Your task to perform on an android device: turn off picture-in-picture Image 0: 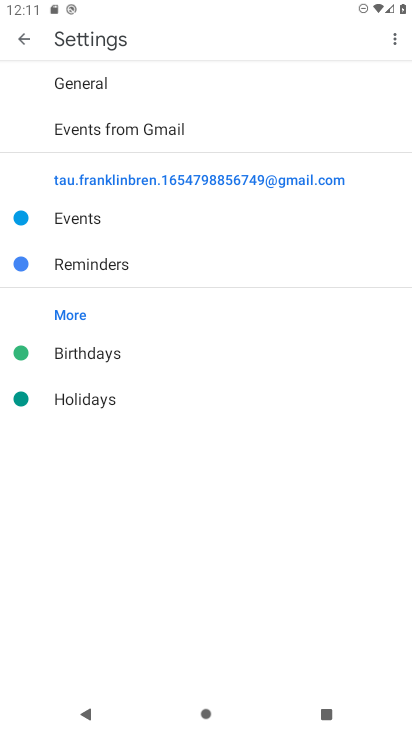
Step 0: press home button
Your task to perform on an android device: turn off picture-in-picture Image 1: 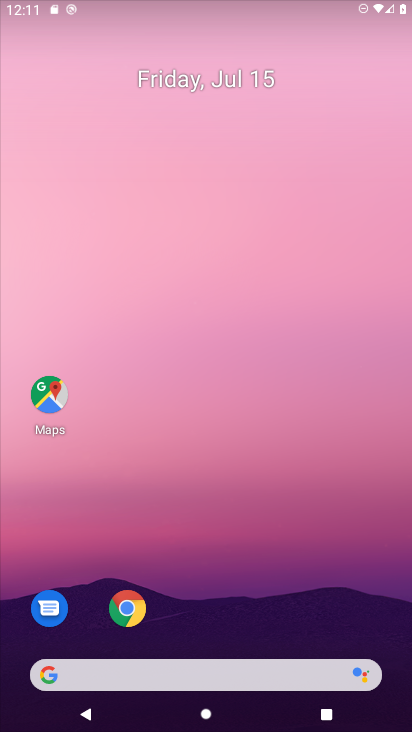
Step 1: drag from (320, 666) to (279, 3)
Your task to perform on an android device: turn off picture-in-picture Image 2: 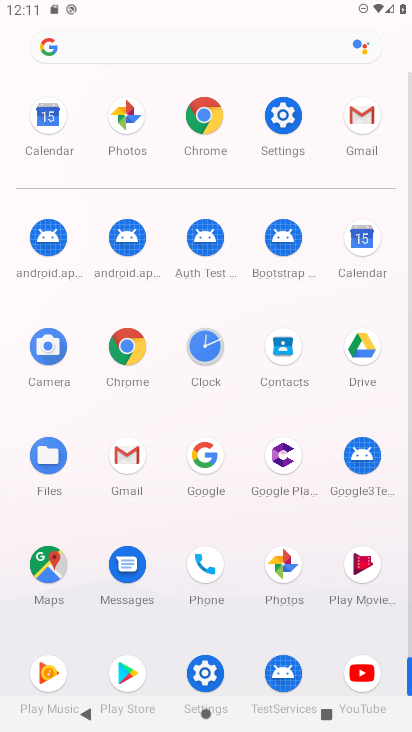
Step 2: click (272, 119)
Your task to perform on an android device: turn off picture-in-picture Image 3: 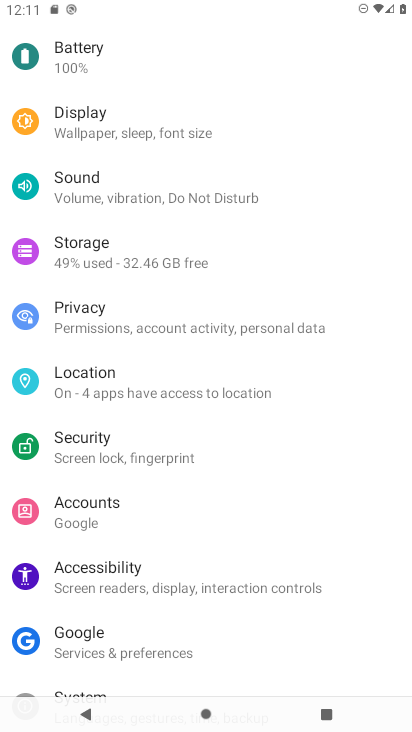
Step 3: drag from (106, 193) to (129, 539)
Your task to perform on an android device: turn off picture-in-picture Image 4: 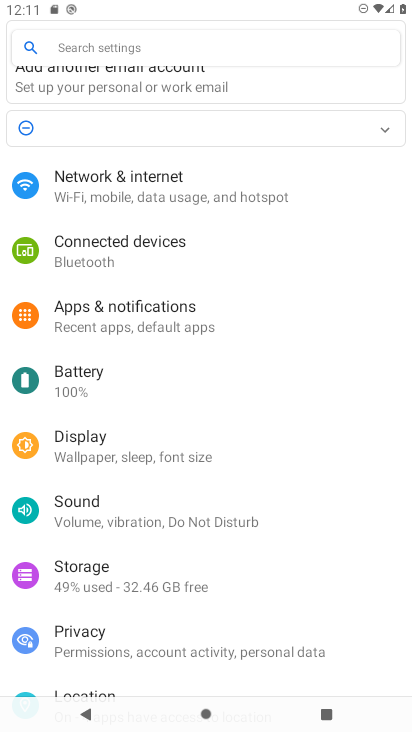
Step 4: click (136, 326)
Your task to perform on an android device: turn off picture-in-picture Image 5: 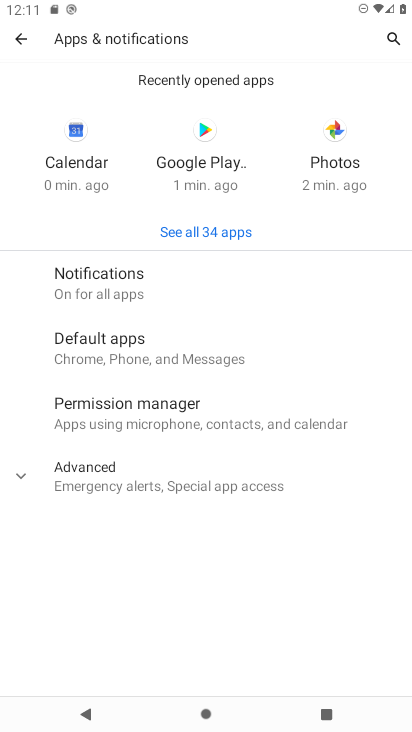
Step 5: click (140, 480)
Your task to perform on an android device: turn off picture-in-picture Image 6: 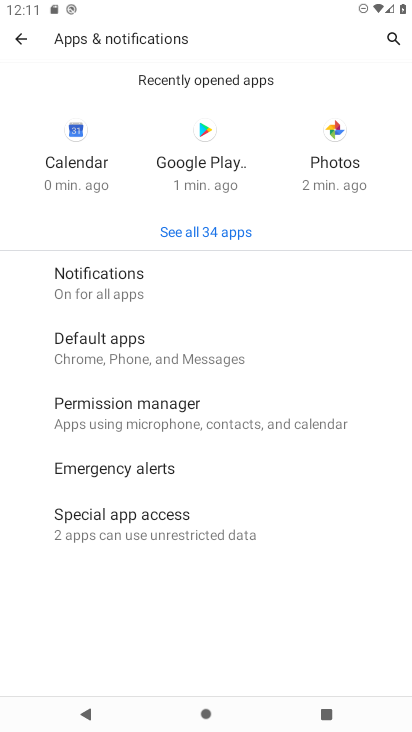
Step 6: click (140, 529)
Your task to perform on an android device: turn off picture-in-picture Image 7: 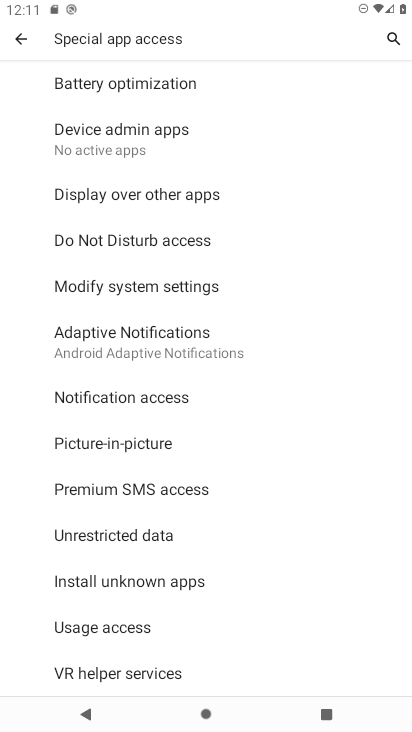
Step 7: click (100, 446)
Your task to perform on an android device: turn off picture-in-picture Image 8: 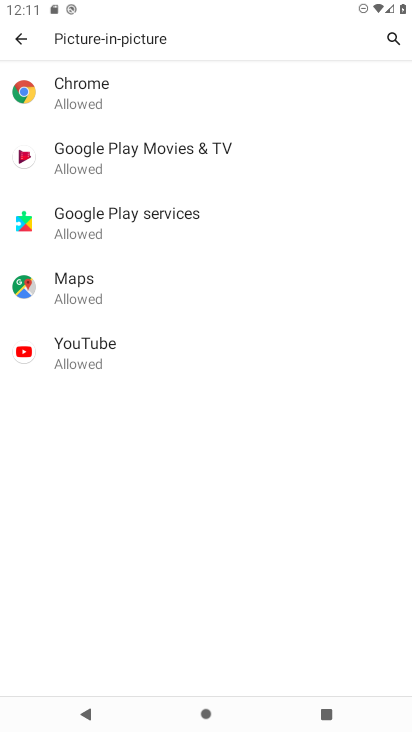
Step 8: click (93, 94)
Your task to perform on an android device: turn off picture-in-picture Image 9: 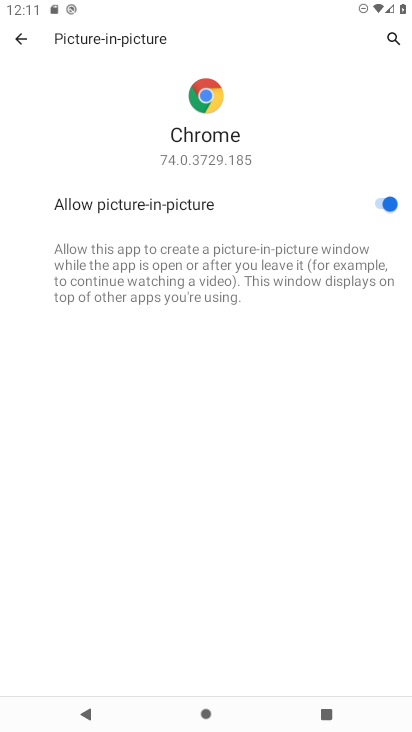
Step 9: click (391, 203)
Your task to perform on an android device: turn off picture-in-picture Image 10: 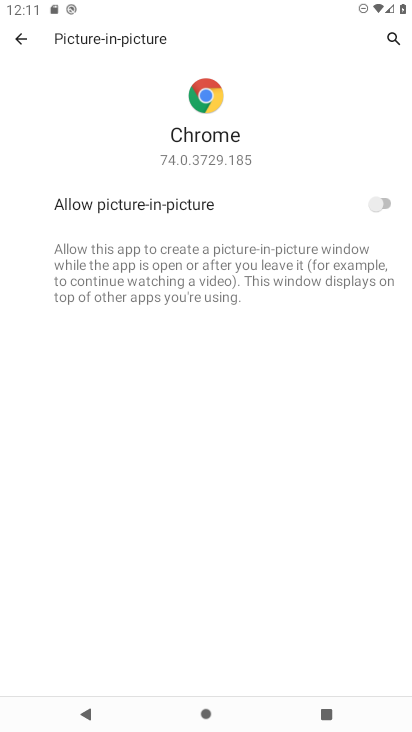
Step 10: press back button
Your task to perform on an android device: turn off picture-in-picture Image 11: 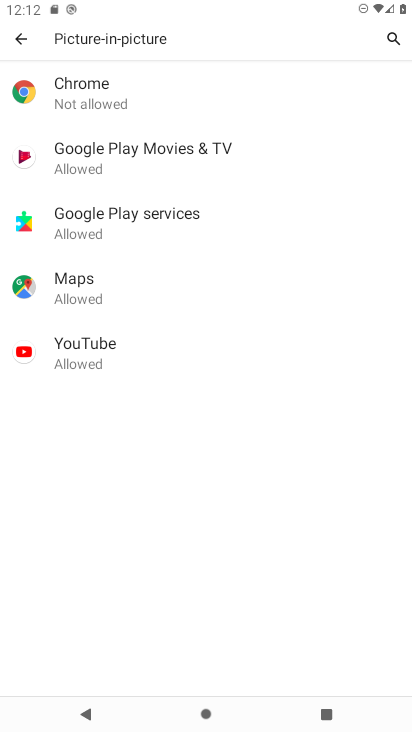
Step 11: click (128, 162)
Your task to perform on an android device: turn off picture-in-picture Image 12: 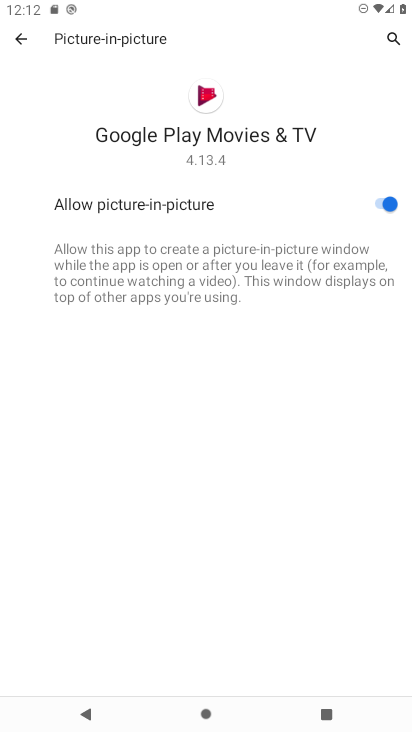
Step 12: click (379, 201)
Your task to perform on an android device: turn off picture-in-picture Image 13: 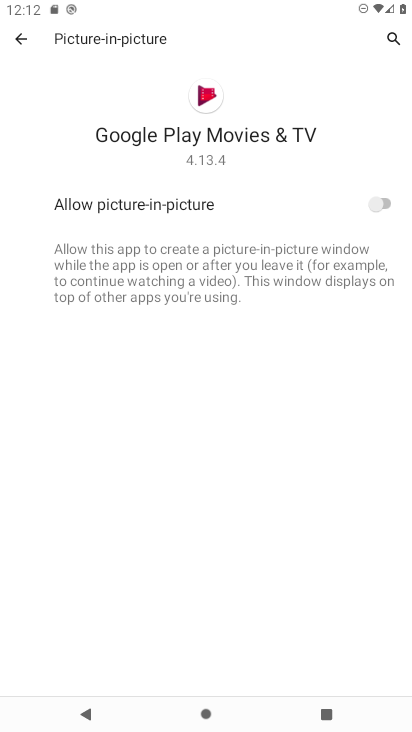
Step 13: press back button
Your task to perform on an android device: turn off picture-in-picture Image 14: 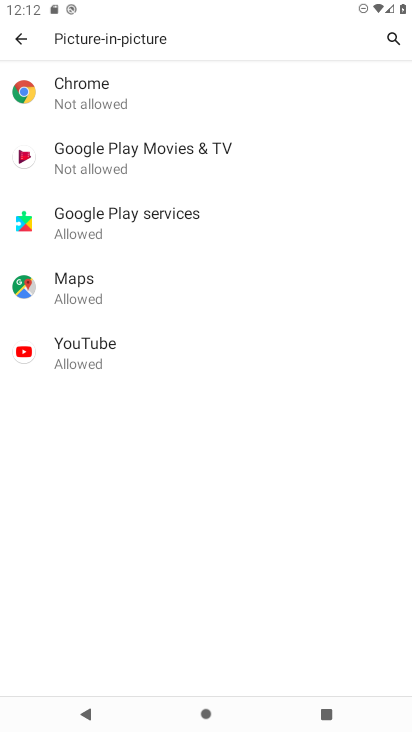
Step 14: click (137, 210)
Your task to perform on an android device: turn off picture-in-picture Image 15: 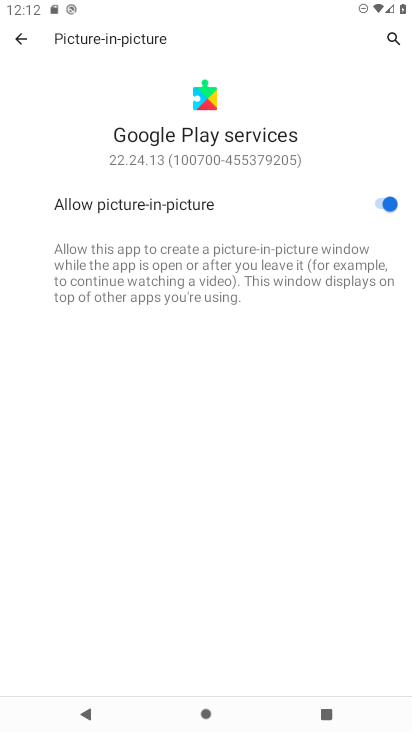
Step 15: click (385, 196)
Your task to perform on an android device: turn off picture-in-picture Image 16: 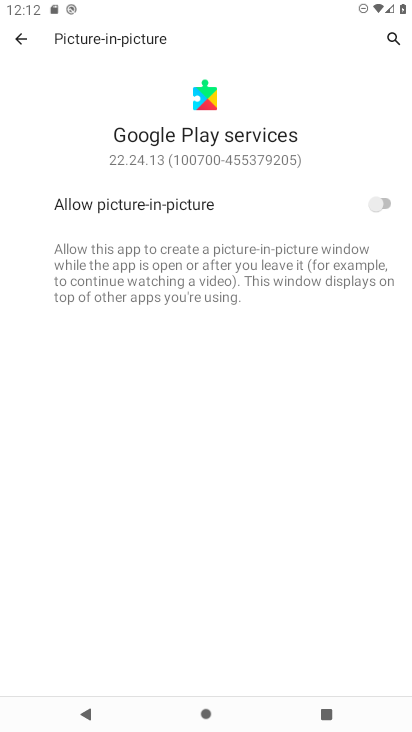
Step 16: press back button
Your task to perform on an android device: turn off picture-in-picture Image 17: 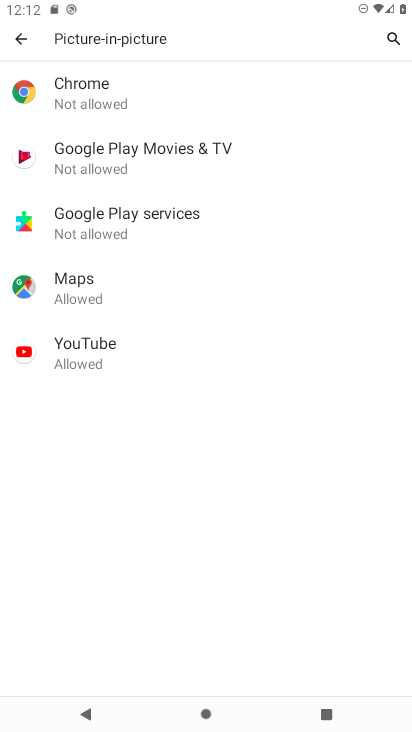
Step 17: click (99, 291)
Your task to perform on an android device: turn off picture-in-picture Image 18: 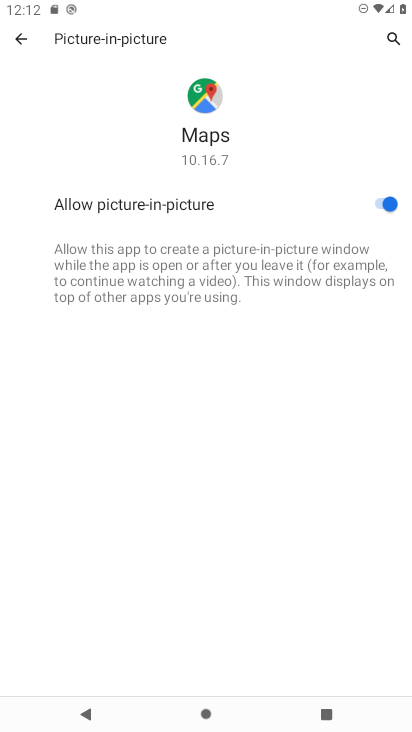
Step 18: click (387, 197)
Your task to perform on an android device: turn off picture-in-picture Image 19: 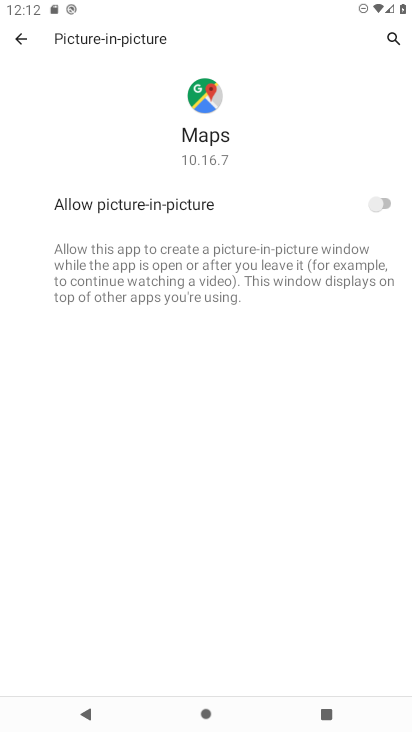
Step 19: press back button
Your task to perform on an android device: turn off picture-in-picture Image 20: 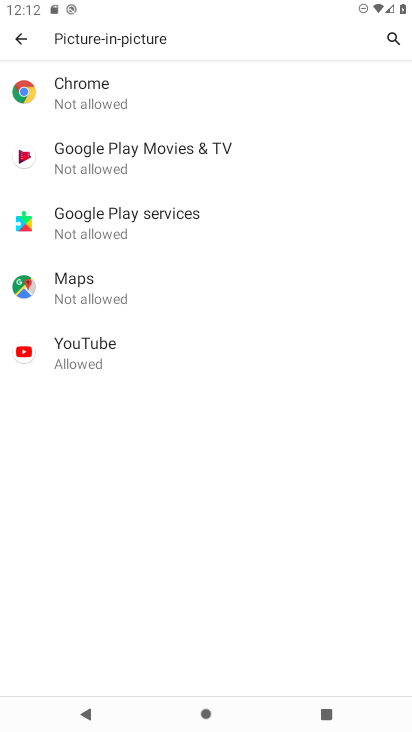
Step 20: click (114, 299)
Your task to perform on an android device: turn off picture-in-picture Image 21: 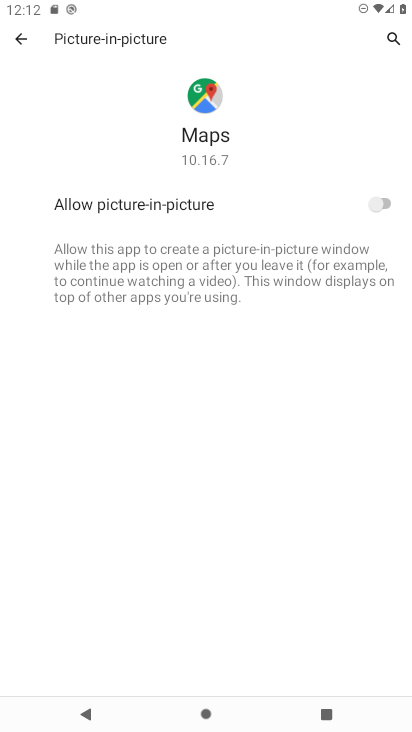
Step 21: press back button
Your task to perform on an android device: turn off picture-in-picture Image 22: 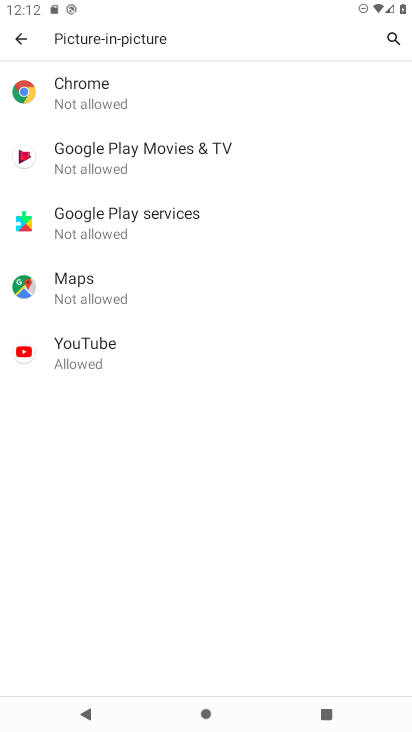
Step 22: click (114, 367)
Your task to perform on an android device: turn off picture-in-picture Image 23: 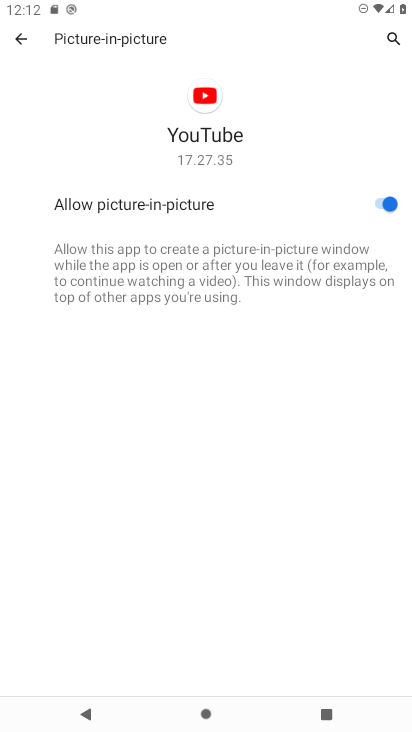
Step 23: click (383, 203)
Your task to perform on an android device: turn off picture-in-picture Image 24: 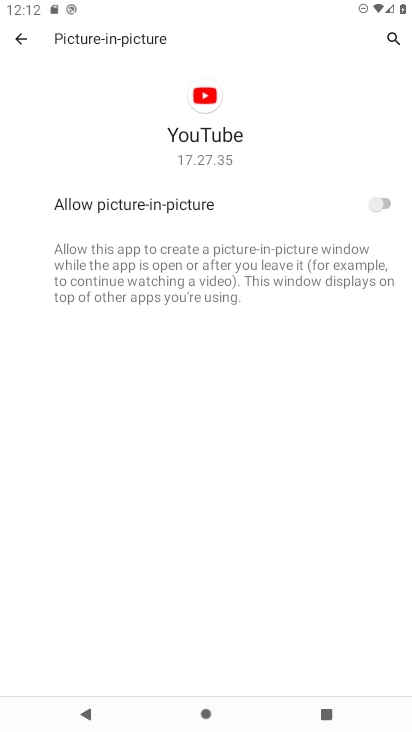
Step 24: task complete